Your task to perform on an android device: Open CNN.com Image 0: 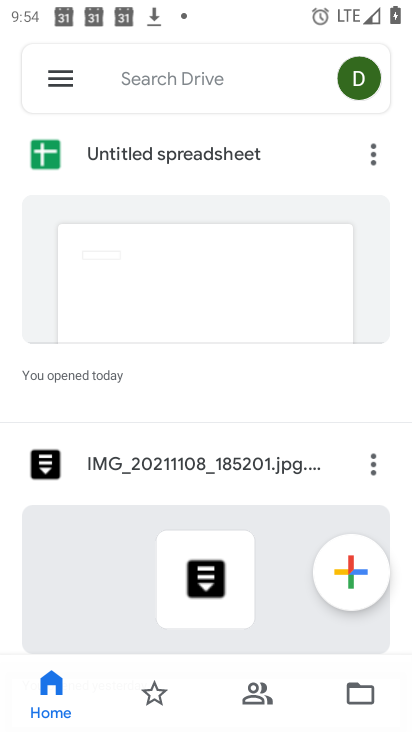
Step 0: press home button
Your task to perform on an android device: Open CNN.com Image 1: 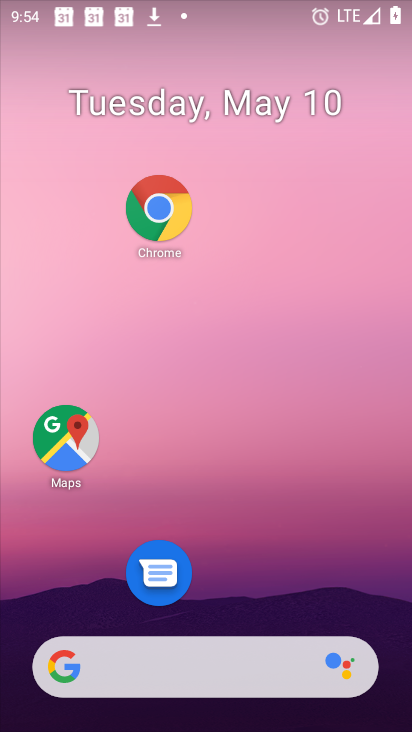
Step 1: drag from (250, 675) to (333, 301)
Your task to perform on an android device: Open CNN.com Image 2: 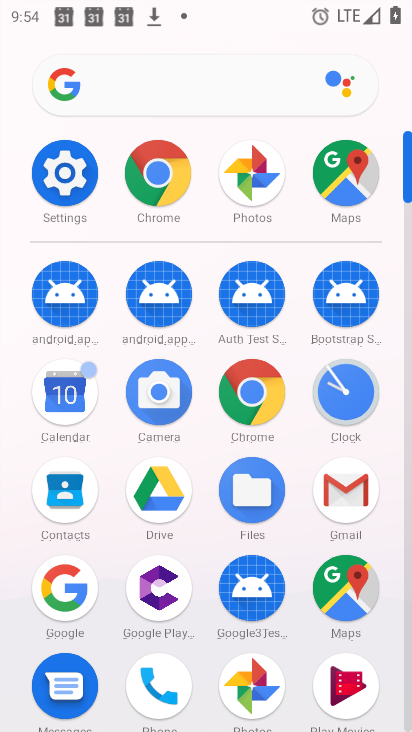
Step 2: click (169, 190)
Your task to perform on an android device: Open CNN.com Image 3: 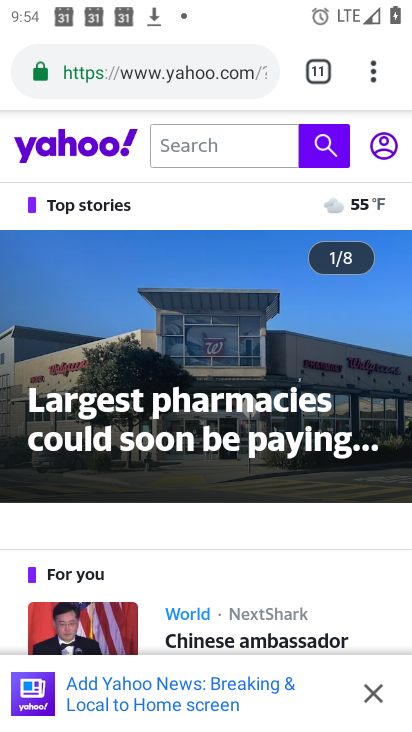
Step 3: click (315, 69)
Your task to perform on an android device: Open CNN.com Image 4: 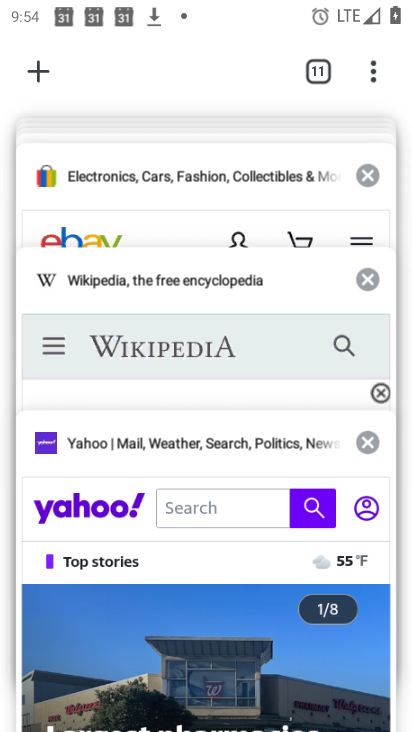
Step 4: click (39, 69)
Your task to perform on an android device: Open CNN.com Image 5: 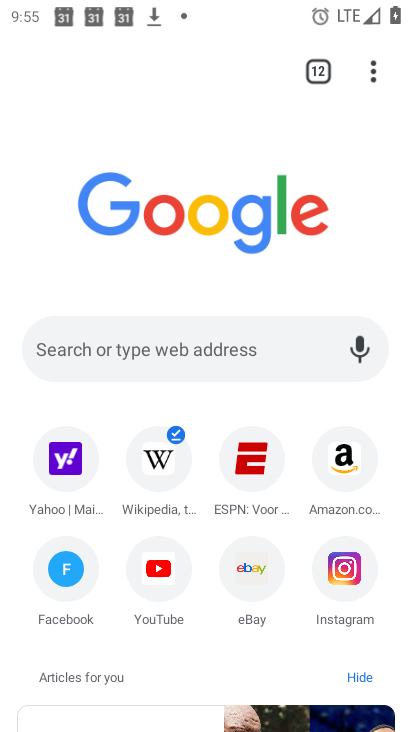
Step 5: click (143, 348)
Your task to perform on an android device: Open CNN.com Image 6: 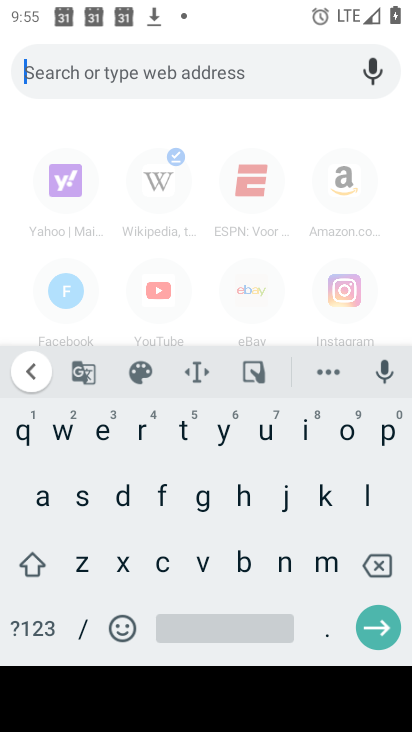
Step 6: click (162, 570)
Your task to perform on an android device: Open CNN.com Image 7: 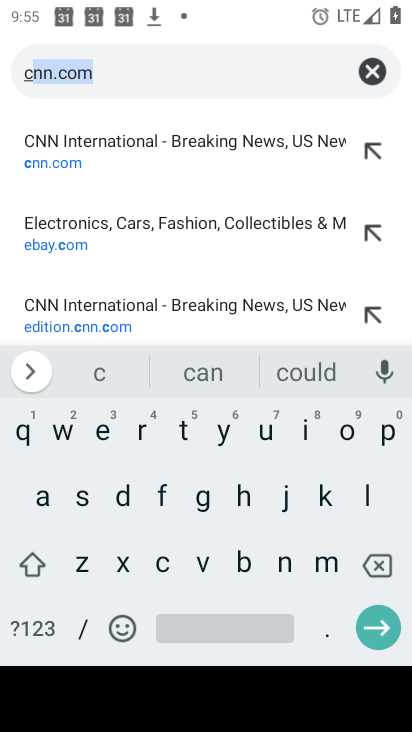
Step 7: click (118, 77)
Your task to perform on an android device: Open CNN.com Image 8: 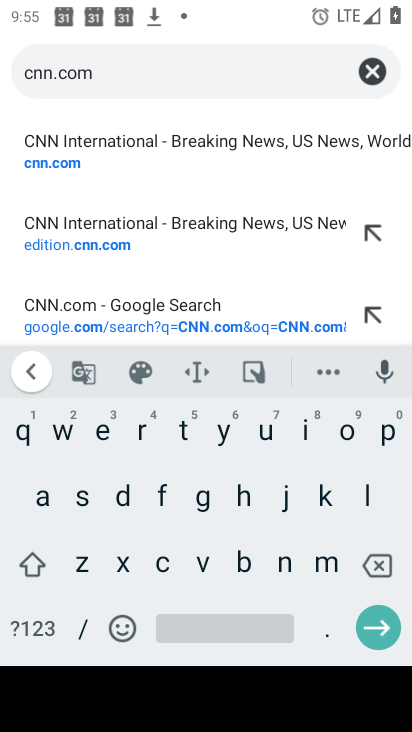
Step 8: click (380, 614)
Your task to perform on an android device: Open CNN.com Image 9: 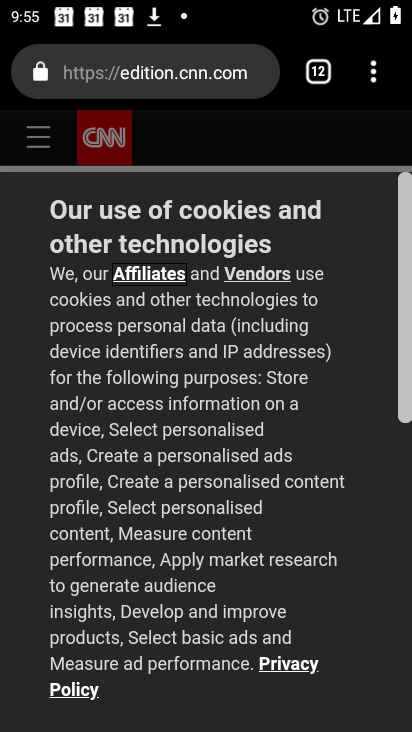
Step 9: drag from (269, 587) to (306, 307)
Your task to perform on an android device: Open CNN.com Image 10: 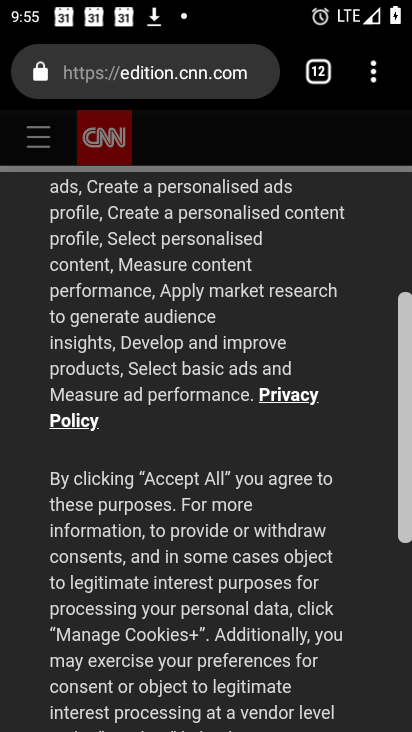
Step 10: drag from (198, 616) to (280, 231)
Your task to perform on an android device: Open CNN.com Image 11: 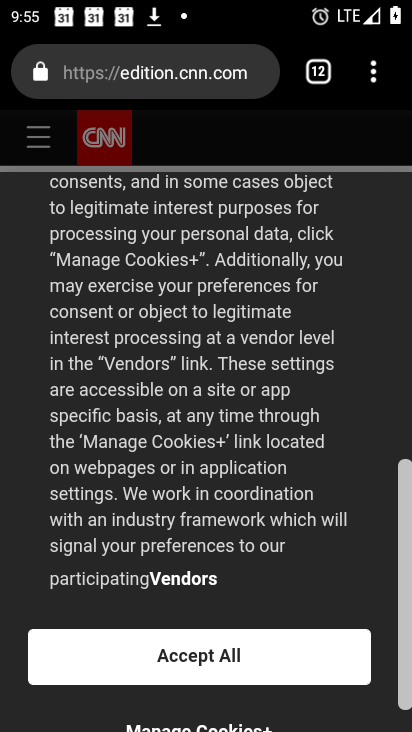
Step 11: click (210, 647)
Your task to perform on an android device: Open CNN.com Image 12: 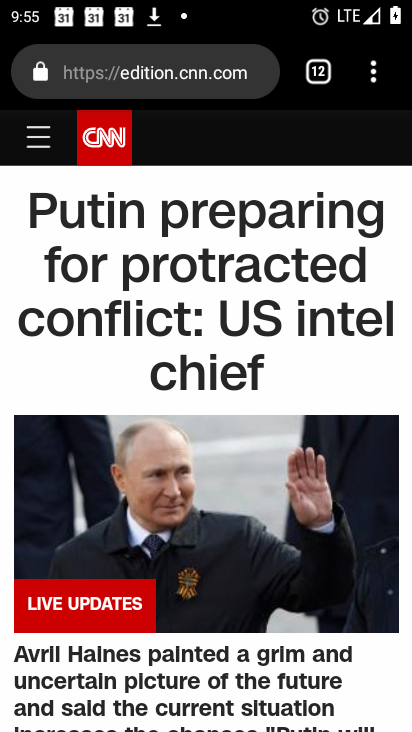
Step 12: task complete